Your task to perform on an android device: Search for Italian restaurants on Maps Image 0: 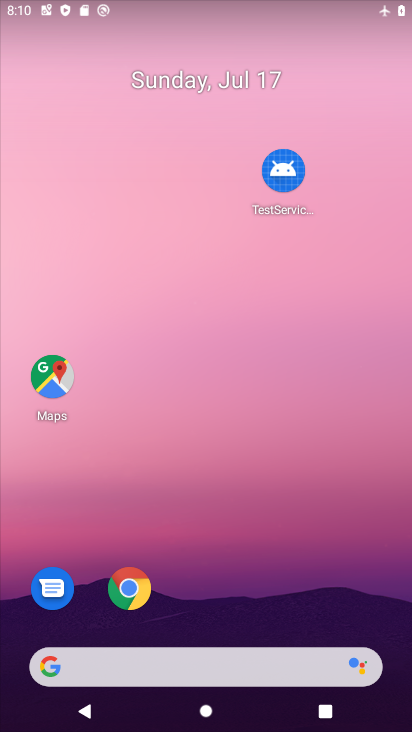
Step 0: drag from (183, 658) to (155, 137)
Your task to perform on an android device: Search for Italian restaurants on Maps Image 1: 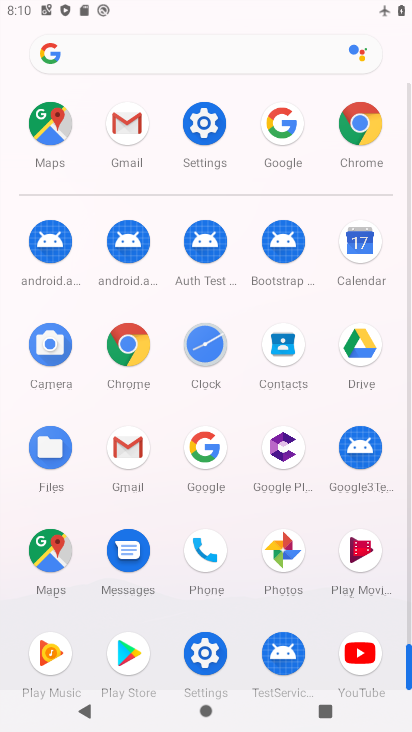
Step 1: click (59, 571)
Your task to perform on an android device: Search for Italian restaurants on Maps Image 2: 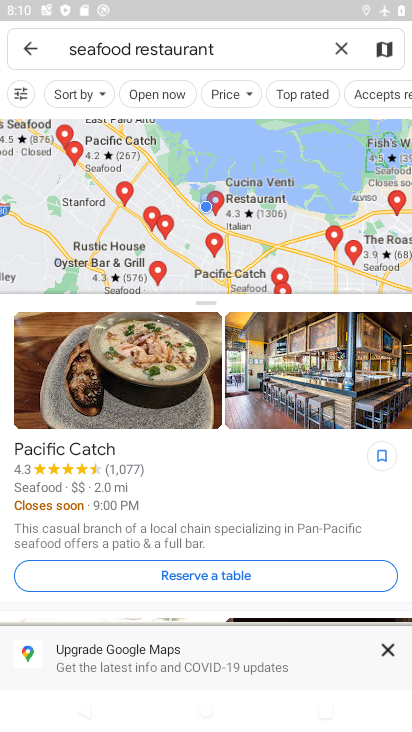
Step 2: click (280, 51)
Your task to perform on an android device: Search for Italian restaurants on Maps Image 3: 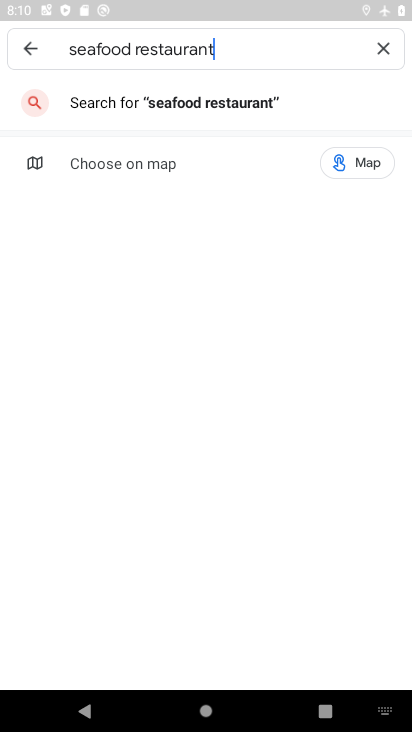
Step 3: click (378, 56)
Your task to perform on an android device: Search for Italian restaurants on Maps Image 4: 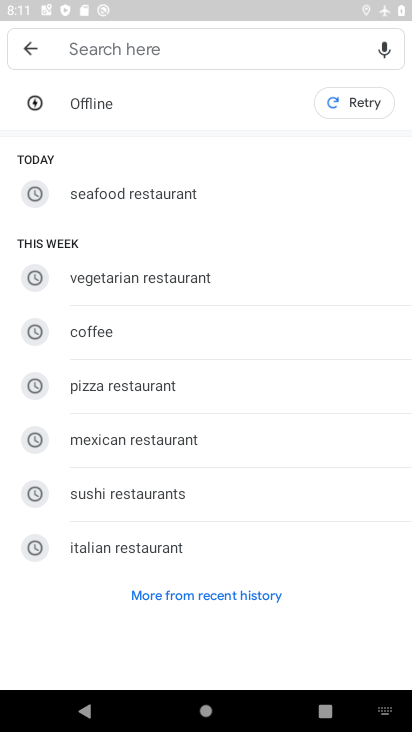
Step 4: click (134, 558)
Your task to perform on an android device: Search for Italian restaurants on Maps Image 5: 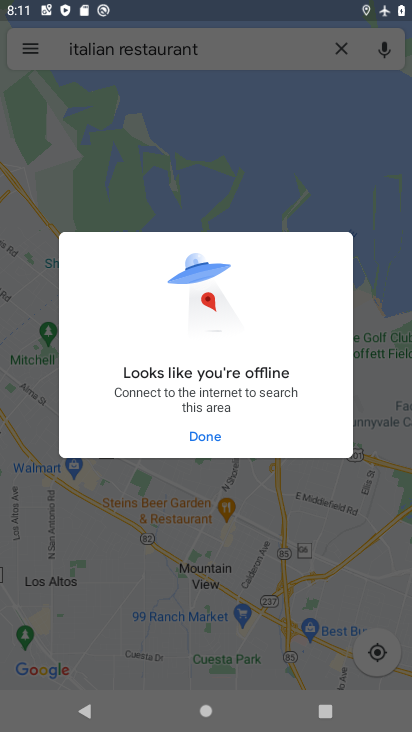
Step 5: click (213, 440)
Your task to perform on an android device: Search for Italian restaurants on Maps Image 6: 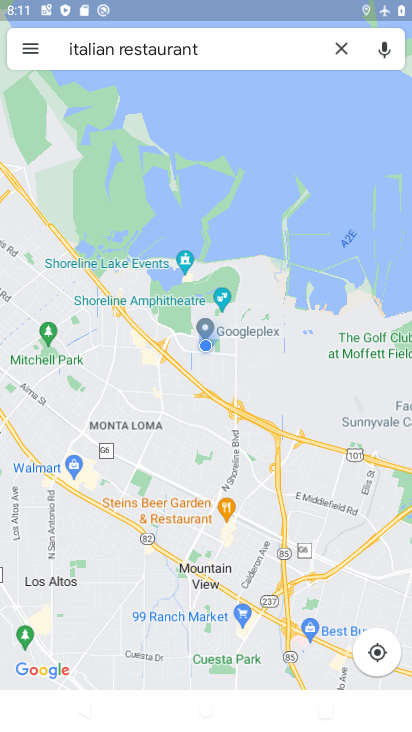
Step 6: task complete